Your task to perform on an android device: turn smart compose on in the gmail app Image 0: 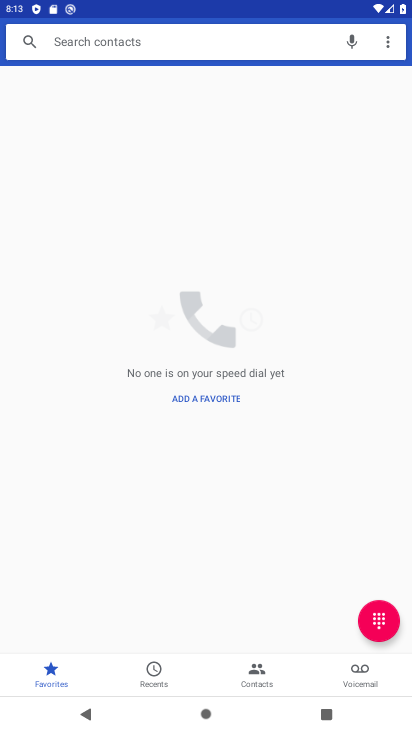
Step 0: press home button
Your task to perform on an android device: turn smart compose on in the gmail app Image 1: 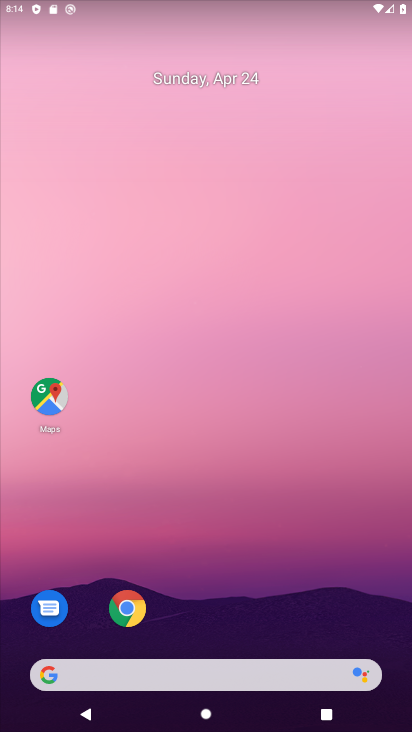
Step 1: drag from (199, 690) to (216, 160)
Your task to perform on an android device: turn smart compose on in the gmail app Image 2: 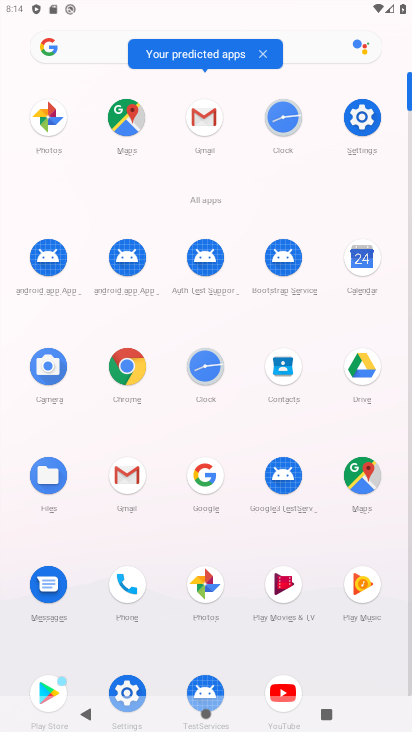
Step 2: click (212, 109)
Your task to perform on an android device: turn smart compose on in the gmail app Image 3: 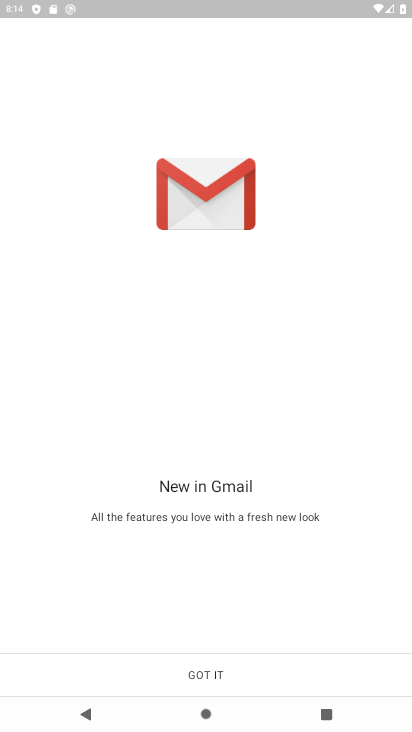
Step 3: click (204, 673)
Your task to perform on an android device: turn smart compose on in the gmail app Image 4: 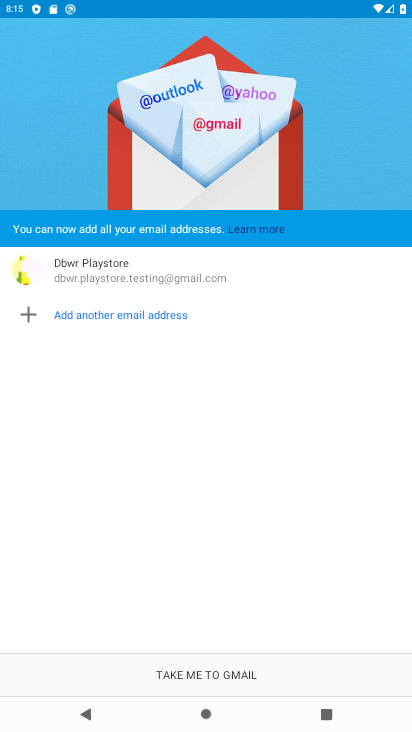
Step 4: click (204, 673)
Your task to perform on an android device: turn smart compose on in the gmail app Image 5: 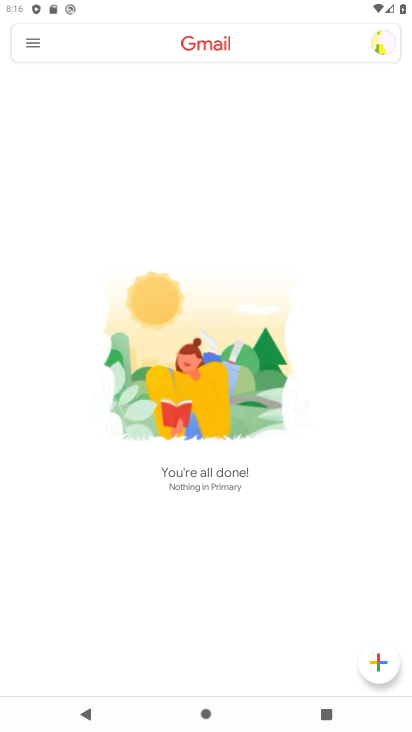
Step 5: click (45, 41)
Your task to perform on an android device: turn smart compose on in the gmail app Image 6: 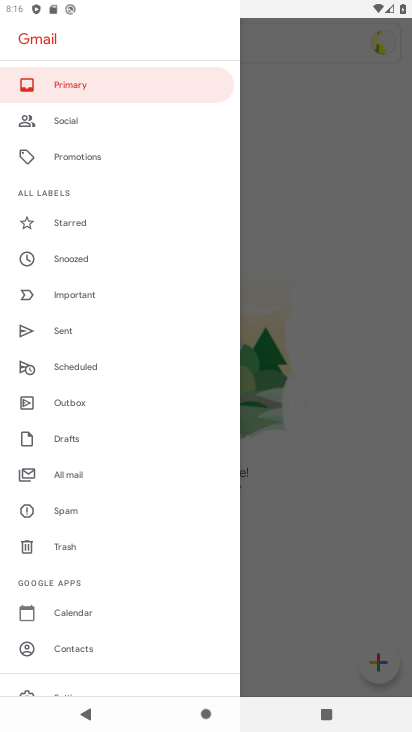
Step 6: click (81, 686)
Your task to perform on an android device: turn smart compose on in the gmail app Image 7: 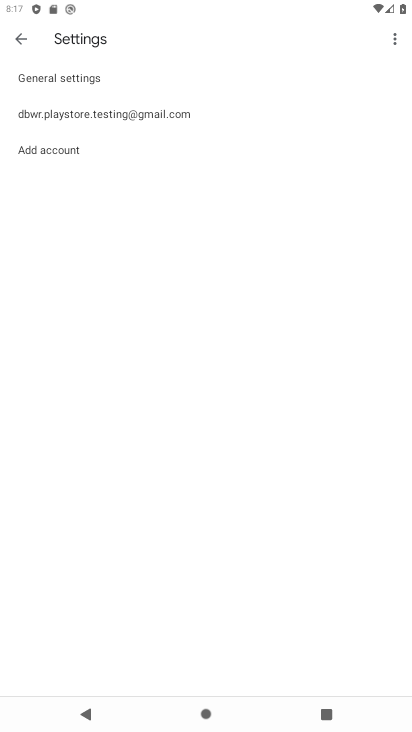
Step 7: click (111, 110)
Your task to perform on an android device: turn smart compose on in the gmail app Image 8: 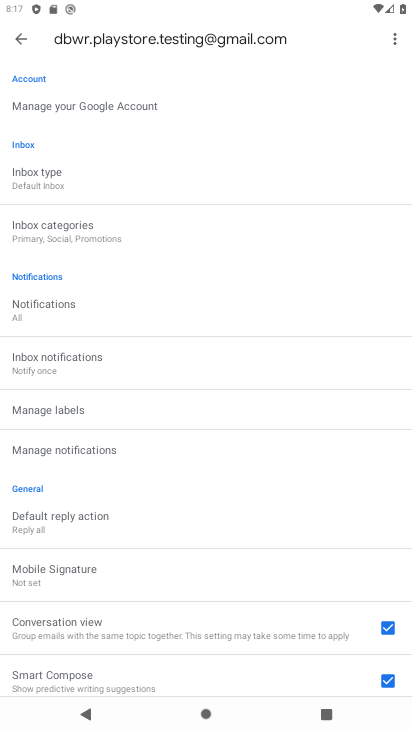
Step 8: click (137, 672)
Your task to perform on an android device: turn smart compose on in the gmail app Image 9: 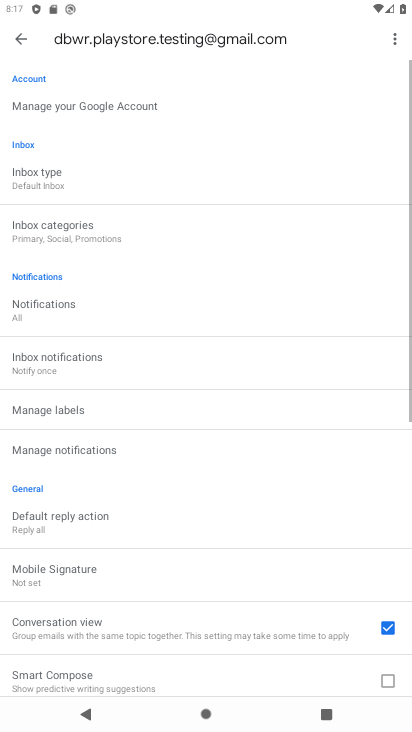
Step 9: click (137, 672)
Your task to perform on an android device: turn smart compose on in the gmail app Image 10: 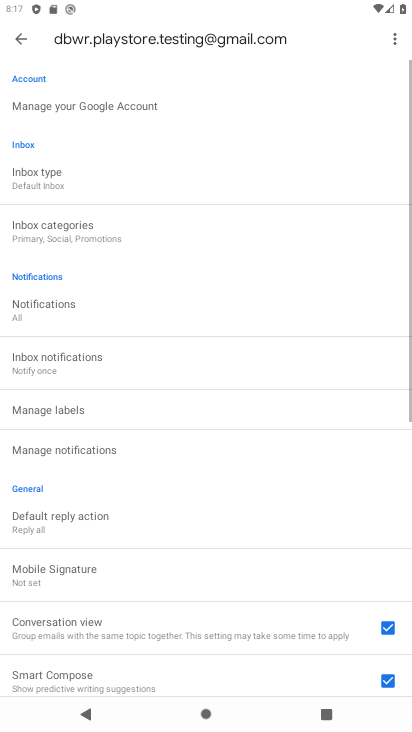
Step 10: task complete